Your task to perform on an android device: Open Yahoo.com Image 0: 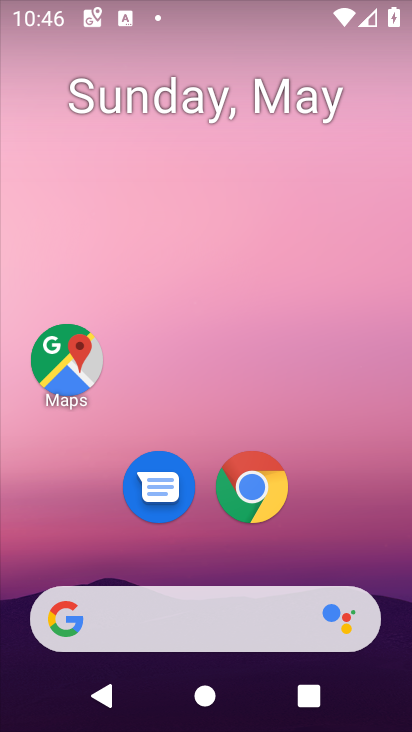
Step 0: drag from (253, 646) to (229, 12)
Your task to perform on an android device: Open Yahoo.com Image 1: 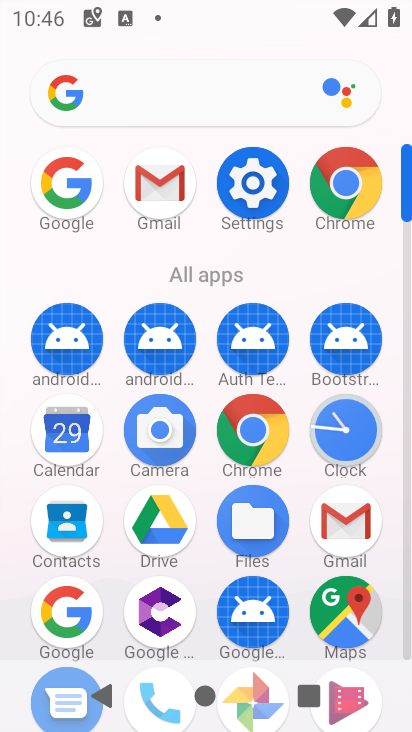
Step 1: click (359, 169)
Your task to perform on an android device: Open Yahoo.com Image 2: 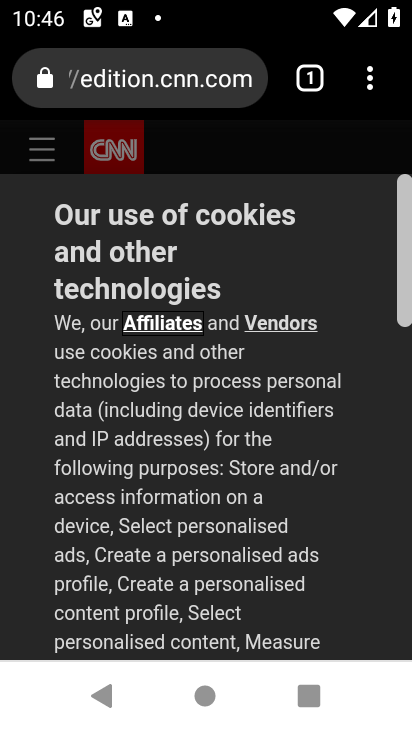
Step 2: click (247, 95)
Your task to perform on an android device: Open Yahoo.com Image 3: 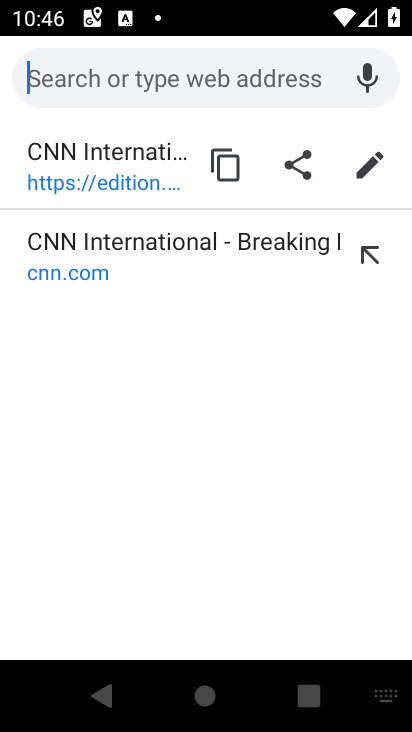
Step 3: type "yahoo"
Your task to perform on an android device: Open Yahoo.com Image 4: 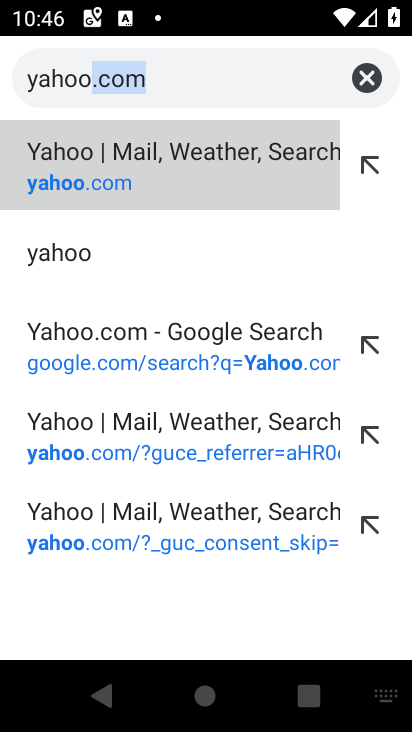
Step 4: click (170, 201)
Your task to perform on an android device: Open Yahoo.com Image 5: 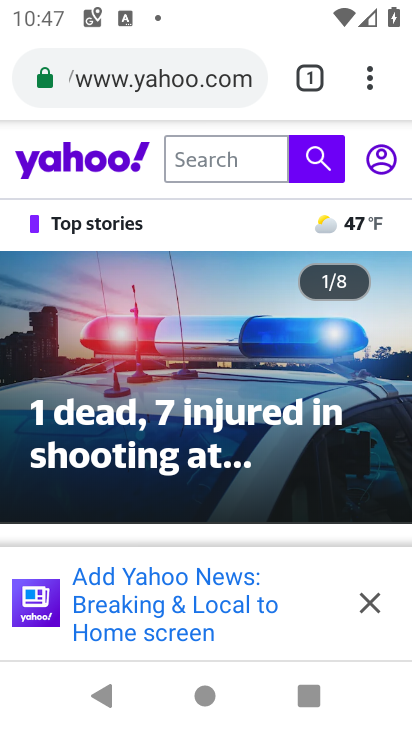
Step 5: task complete